Your task to perform on an android device: open the mobile data screen to see how much data has been used Image 0: 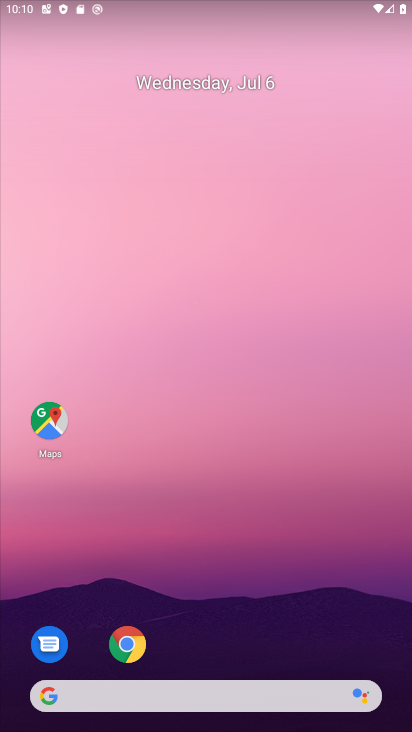
Step 0: drag from (176, 280) to (168, 213)
Your task to perform on an android device: open the mobile data screen to see how much data has been used Image 1: 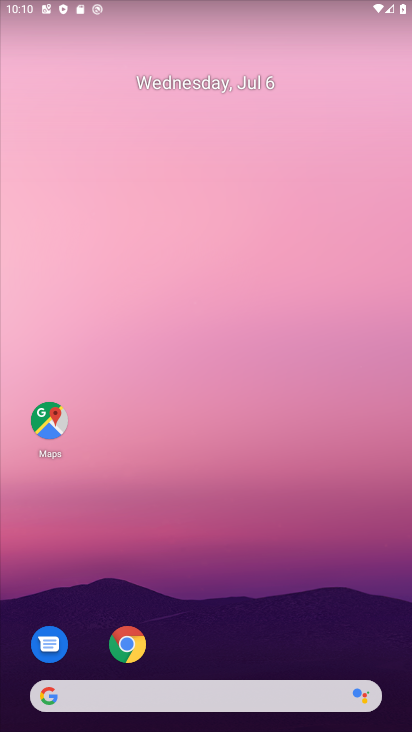
Step 1: drag from (249, 587) to (208, 195)
Your task to perform on an android device: open the mobile data screen to see how much data has been used Image 2: 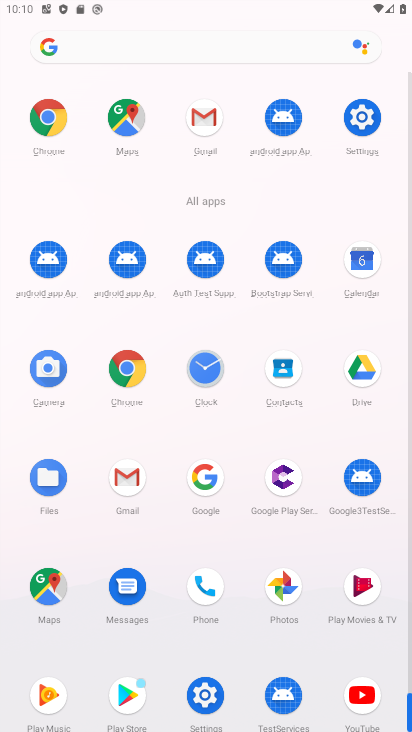
Step 2: click (369, 116)
Your task to perform on an android device: open the mobile data screen to see how much data has been used Image 3: 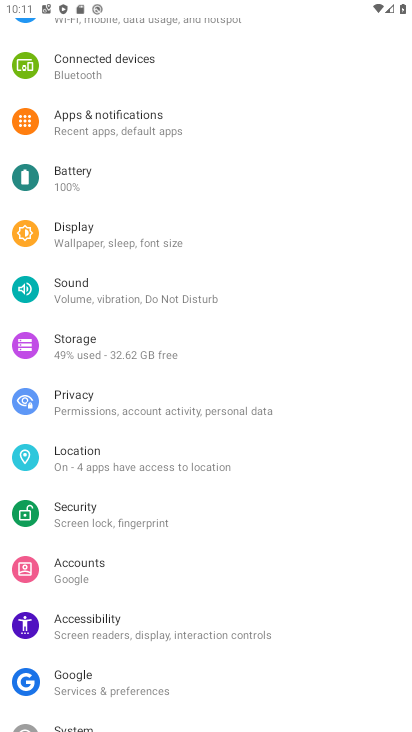
Step 3: click (140, 583)
Your task to perform on an android device: open the mobile data screen to see how much data has been used Image 4: 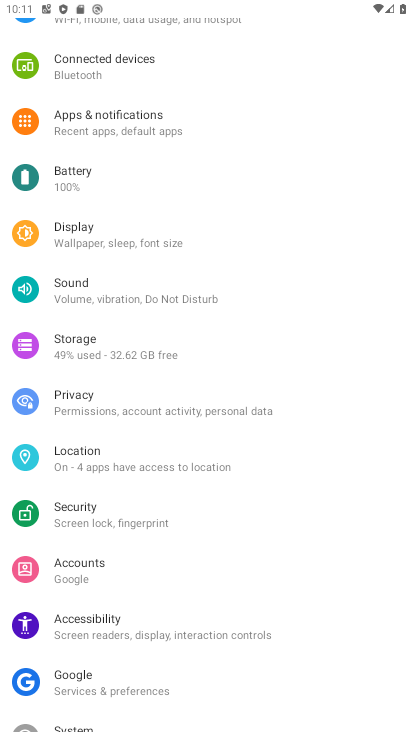
Step 4: drag from (149, 413) to (158, 448)
Your task to perform on an android device: open the mobile data screen to see how much data has been used Image 5: 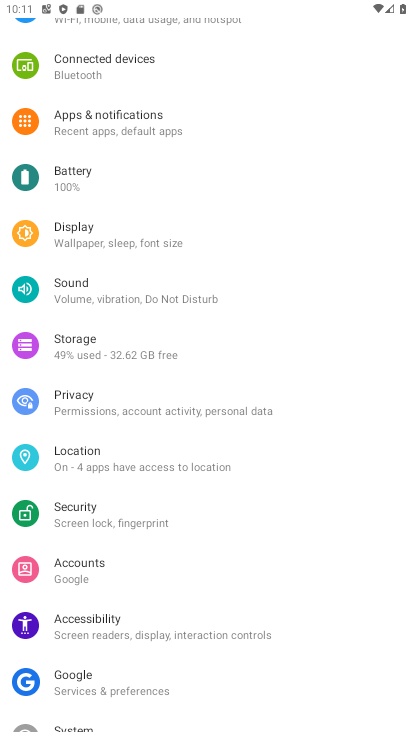
Step 5: click (192, 592)
Your task to perform on an android device: open the mobile data screen to see how much data has been used Image 6: 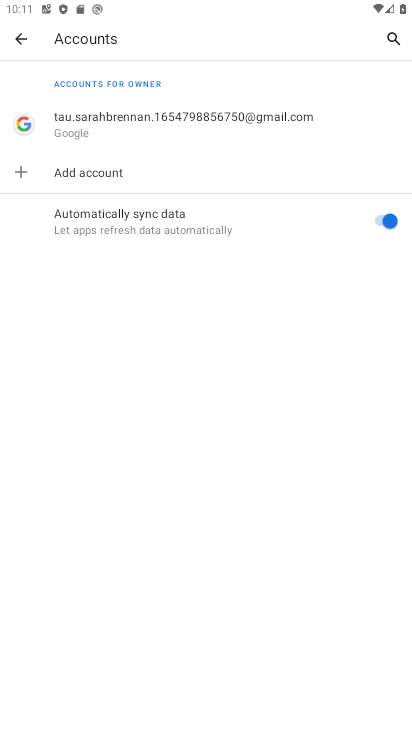
Step 6: drag from (116, 450) to (132, 500)
Your task to perform on an android device: open the mobile data screen to see how much data has been used Image 7: 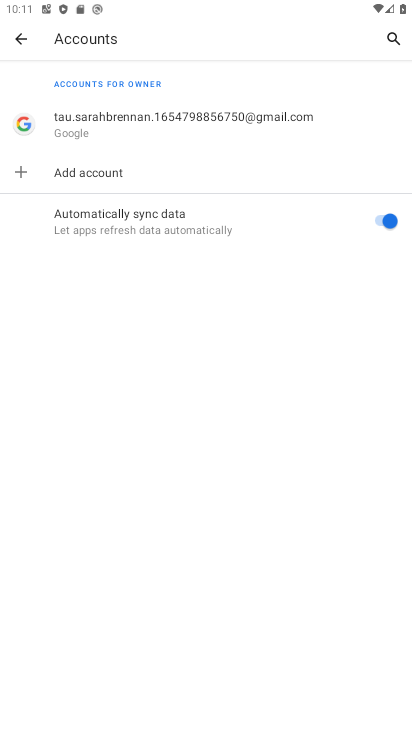
Step 7: click (14, 39)
Your task to perform on an android device: open the mobile data screen to see how much data has been used Image 8: 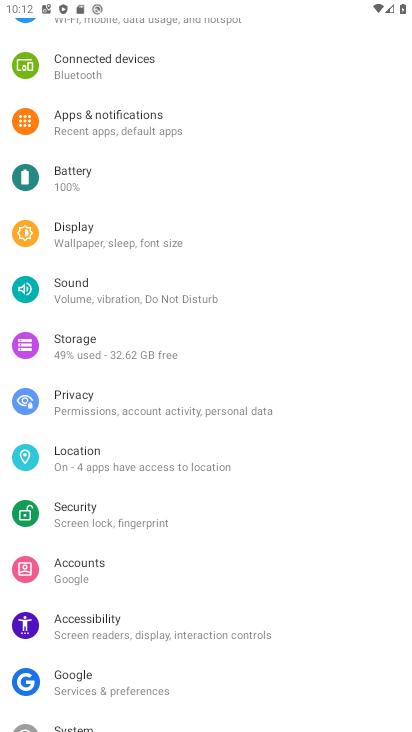
Step 8: drag from (90, 109) to (137, 447)
Your task to perform on an android device: open the mobile data screen to see how much data has been used Image 9: 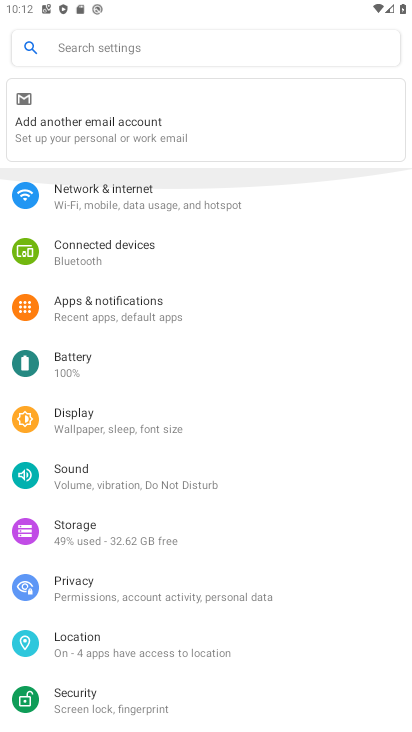
Step 9: drag from (76, 149) to (205, 642)
Your task to perform on an android device: open the mobile data screen to see how much data has been used Image 10: 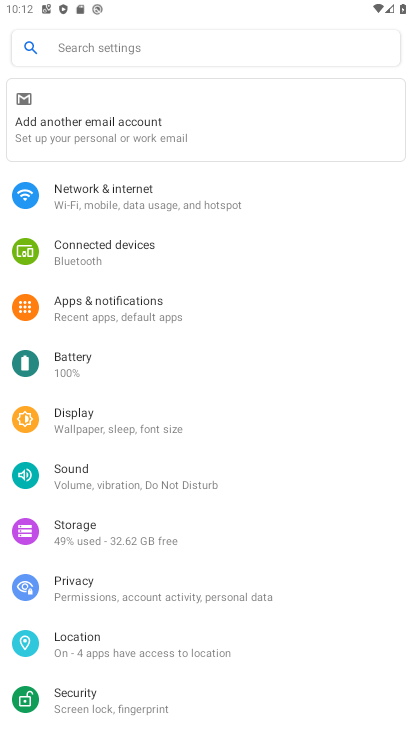
Step 10: click (111, 205)
Your task to perform on an android device: open the mobile data screen to see how much data has been used Image 11: 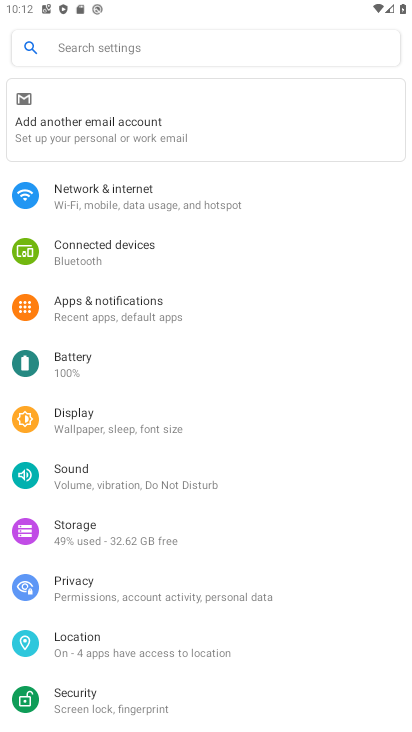
Step 11: click (107, 200)
Your task to perform on an android device: open the mobile data screen to see how much data has been used Image 12: 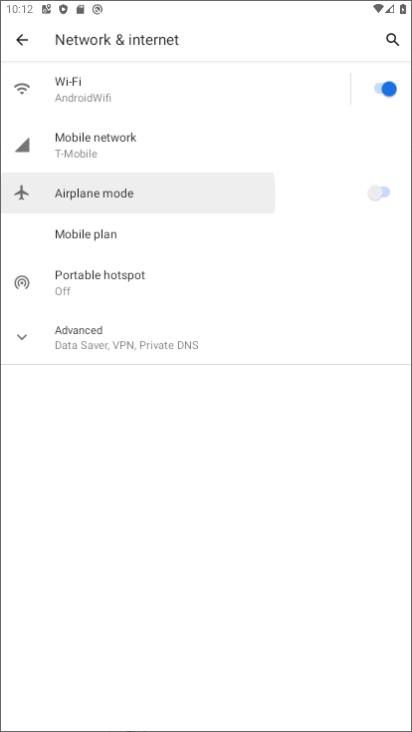
Step 12: click (107, 200)
Your task to perform on an android device: open the mobile data screen to see how much data has been used Image 13: 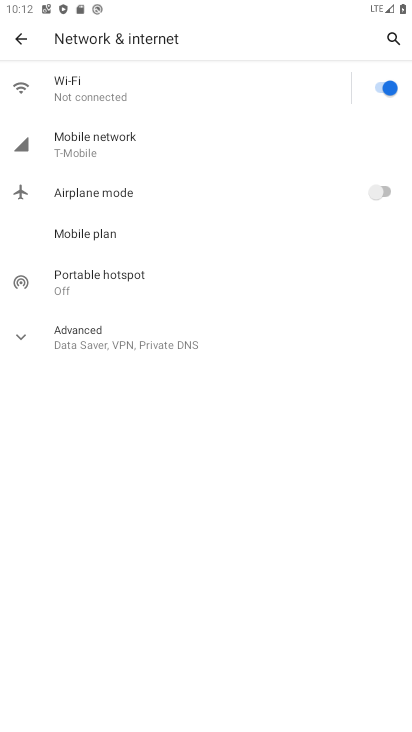
Step 13: click (86, 146)
Your task to perform on an android device: open the mobile data screen to see how much data has been used Image 14: 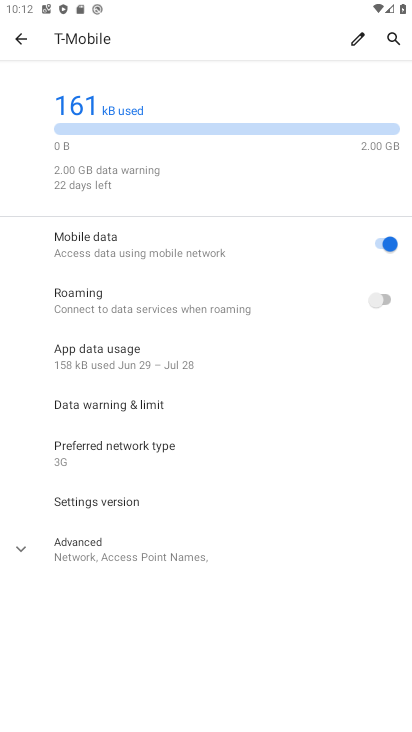
Step 14: click (139, 349)
Your task to perform on an android device: open the mobile data screen to see how much data has been used Image 15: 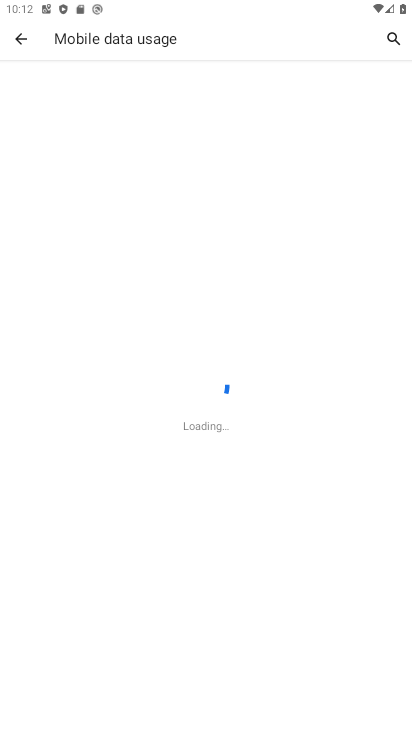
Step 15: click (15, 35)
Your task to perform on an android device: open the mobile data screen to see how much data has been used Image 16: 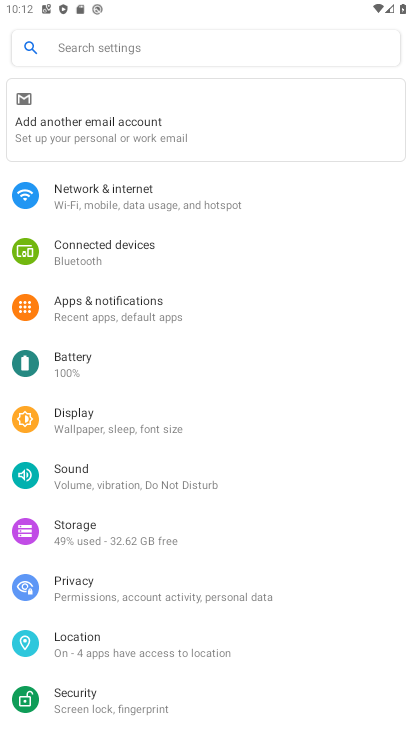
Step 16: task complete